Your task to perform on an android device: turn on translation in the chrome app Image 0: 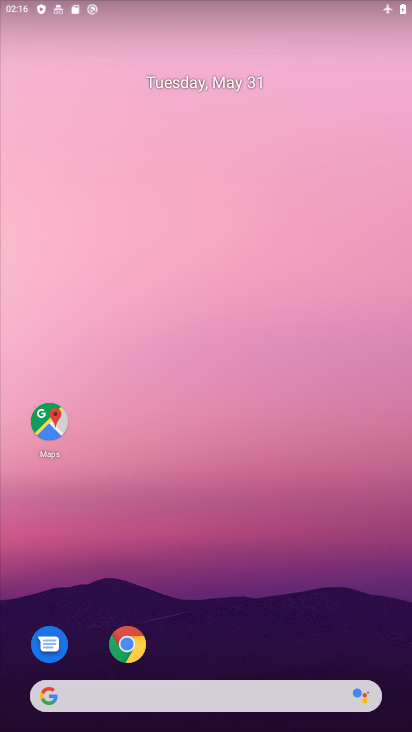
Step 0: click (127, 651)
Your task to perform on an android device: turn on translation in the chrome app Image 1: 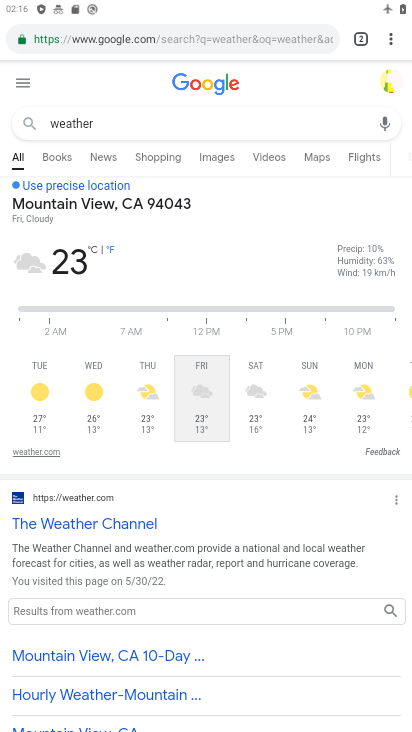
Step 1: click (393, 43)
Your task to perform on an android device: turn on translation in the chrome app Image 2: 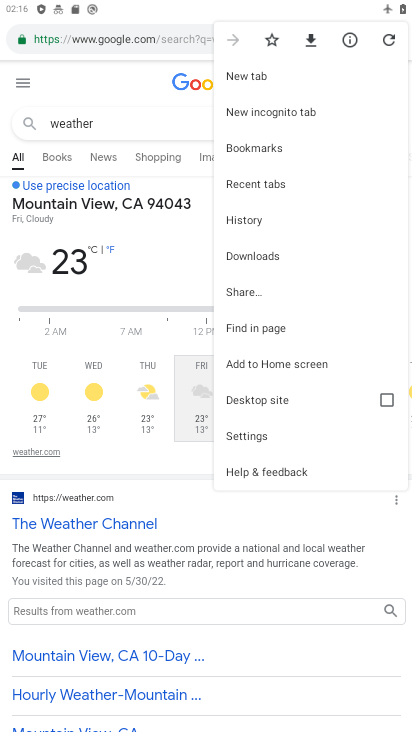
Step 2: click (269, 436)
Your task to perform on an android device: turn on translation in the chrome app Image 3: 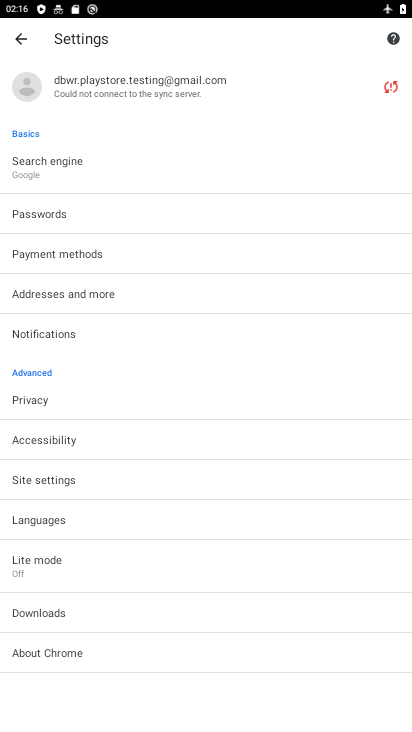
Step 3: click (76, 515)
Your task to perform on an android device: turn on translation in the chrome app Image 4: 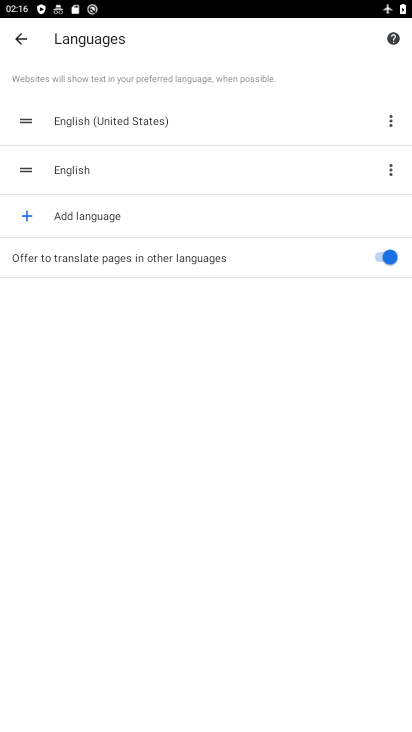
Step 4: task complete